Your task to perform on an android device: show emergency info Image 0: 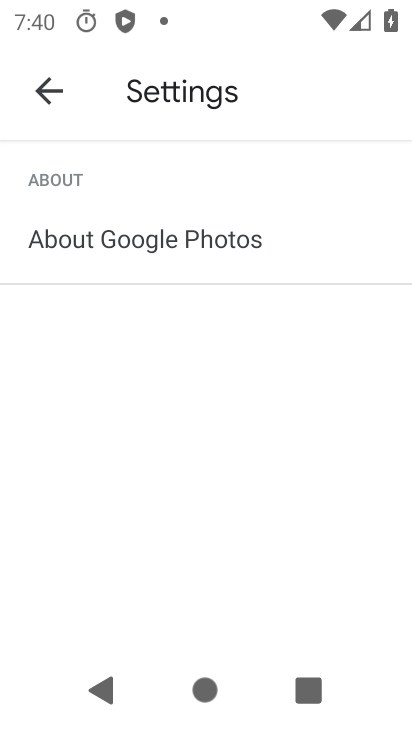
Step 0: press home button
Your task to perform on an android device: show emergency info Image 1: 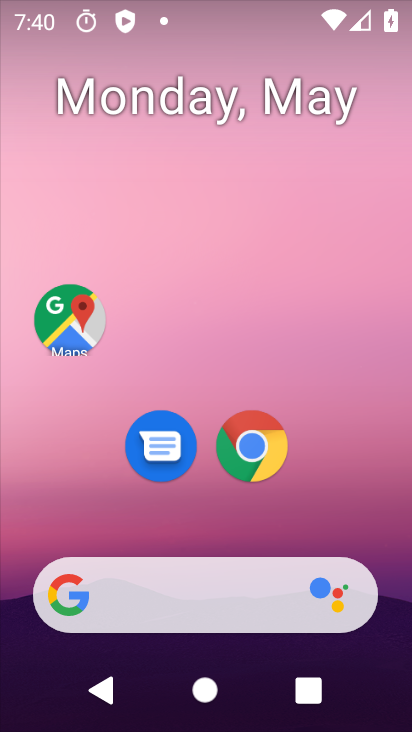
Step 1: drag from (355, 541) to (343, 48)
Your task to perform on an android device: show emergency info Image 2: 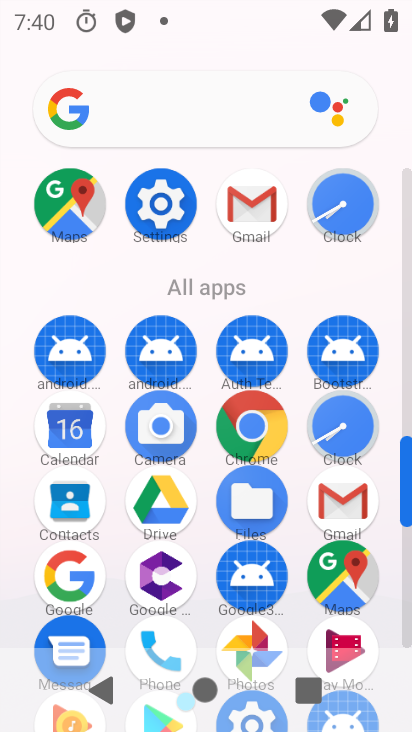
Step 2: click (158, 208)
Your task to perform on an android device: show emergency info Image 3: 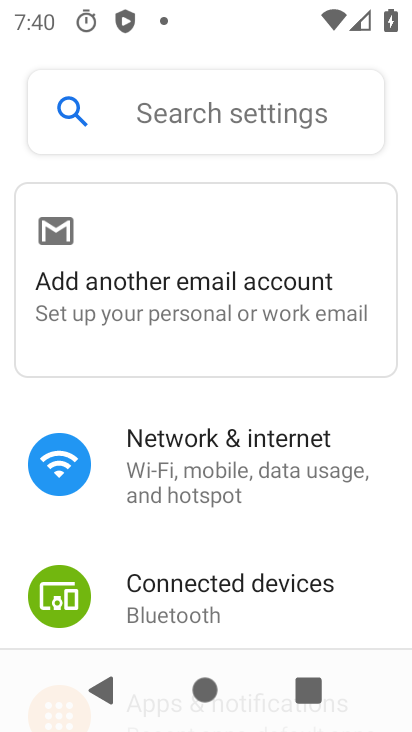
Step 3: drag from (245, 547) to (262, 51)
Your task to perform on an android device: show emergency info Image 4: 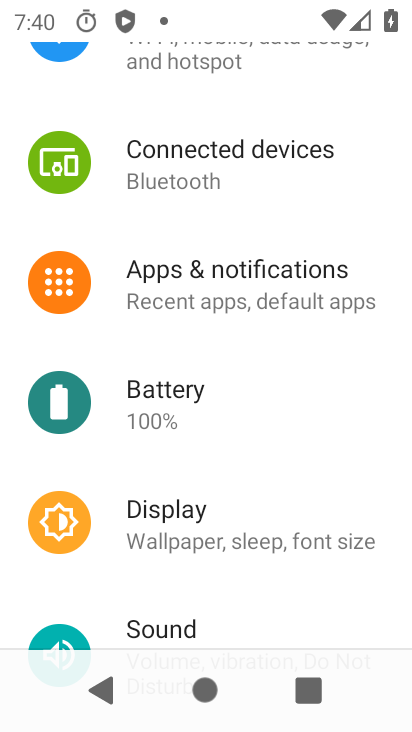
Step 4: drag from (240, 492) to (229, 75)
Your task to perform on an android device: show emergency info Image 5: 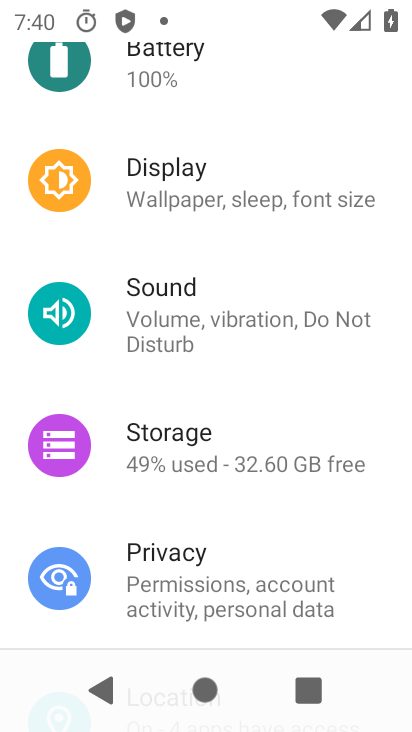
Step 5: drag from (213, 507) to (226, 42)
Your task to perform on an android device: show emergency info Image 6: 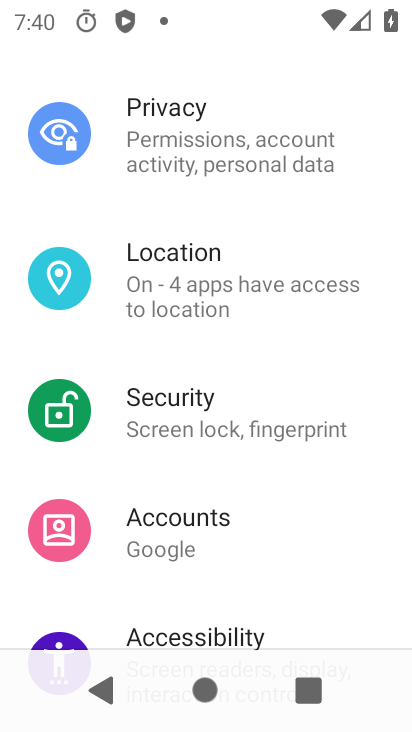
Step 6: drag from (216, 529) to (215, 105)
Your task to perform on an android device: show emergency info Image 7: 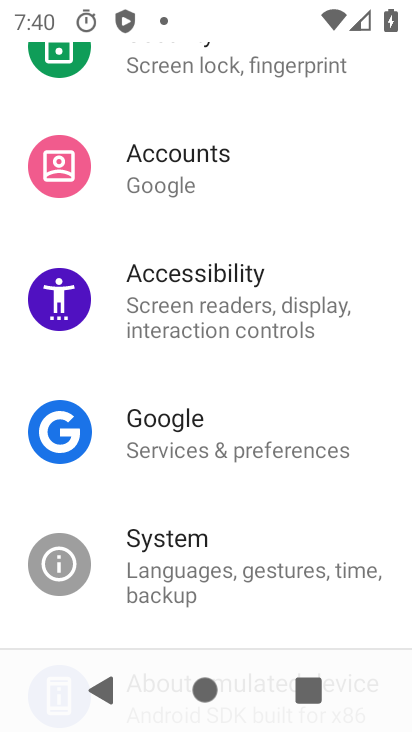
Step 7: drag from (206, 511) to (203, 98)
Your task to perform on an android device: show emergency info Image 8: 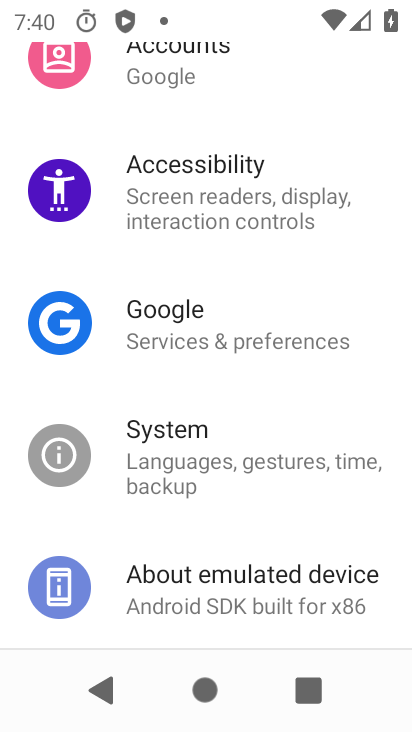
Step 8: click (232, 582)
Your task to perform on an android device: show emergency info Image 9: 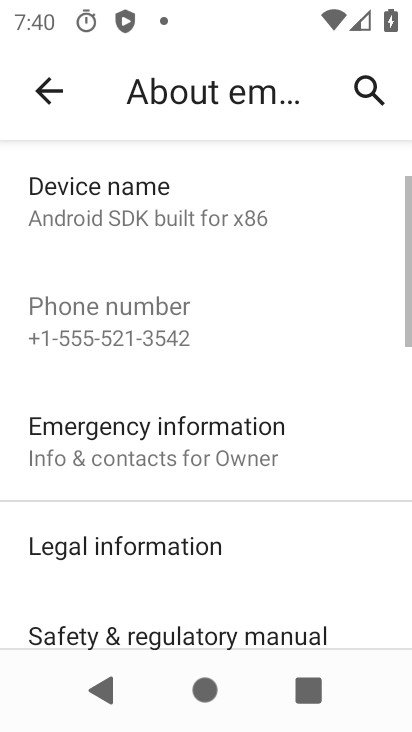
Step 9: click (118, 457)
Your task to perform on an android device: show emergency info Image 10: 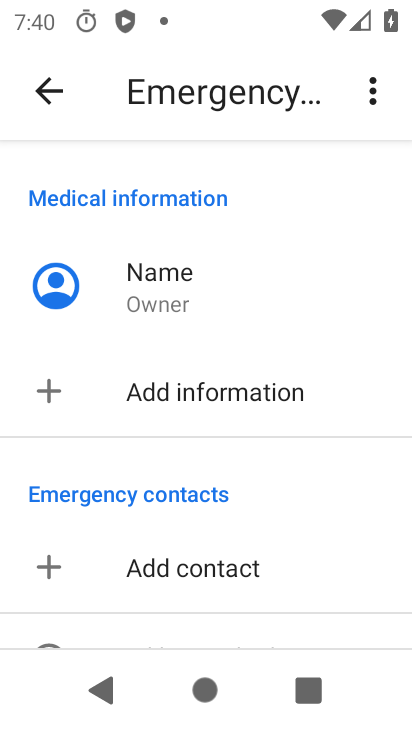
Step 10: task complete